Your task to perform on an android device: snooze an email in the gmail app Image 0: 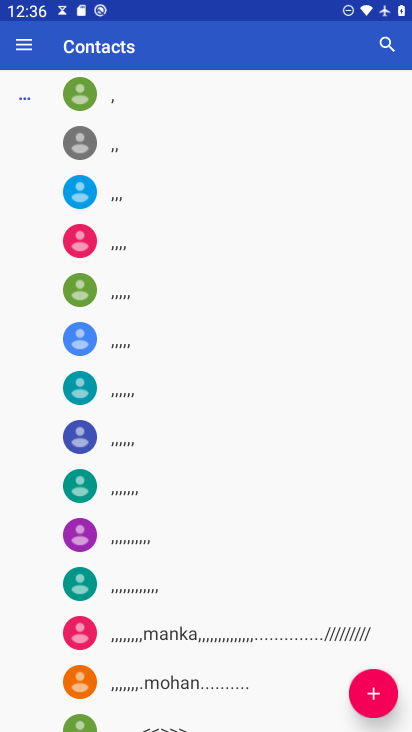
Step 0: press back button
Your task to perform on an android device: snooze an email in the gmail app Image 1: 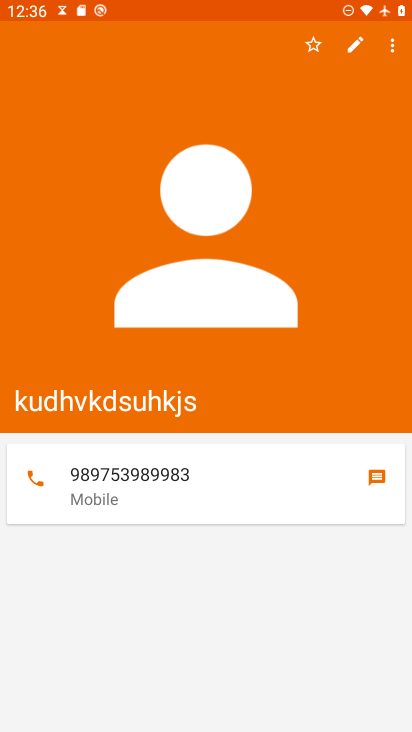
Step 1: press home button
Your task to perform on an android device: snooze an email in the gmail app Image 2: 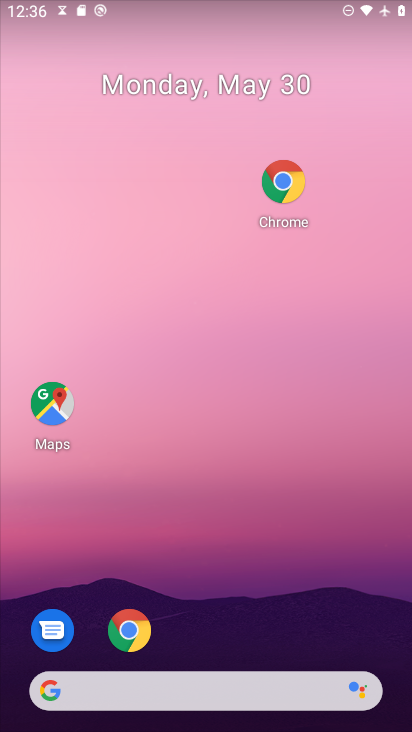
Step 2: drag from (271, 557) to (239, 211)
Your task to perform on an android device: snooze an email in the gmail app Image 3: 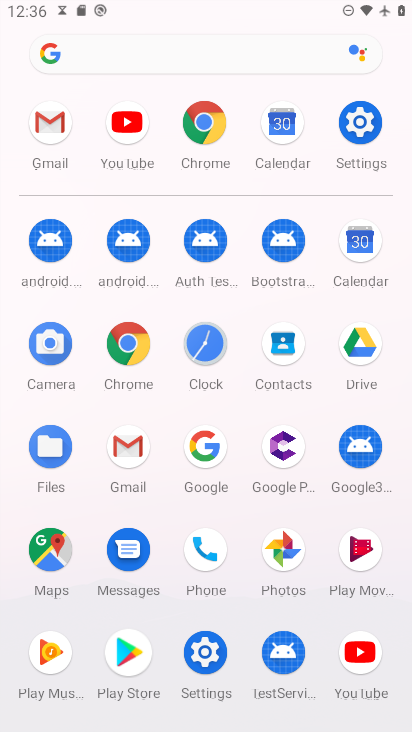
Step 3: click (128, 454)
Your task to perform on an android device: snooze an email in the gmail app Image 4: 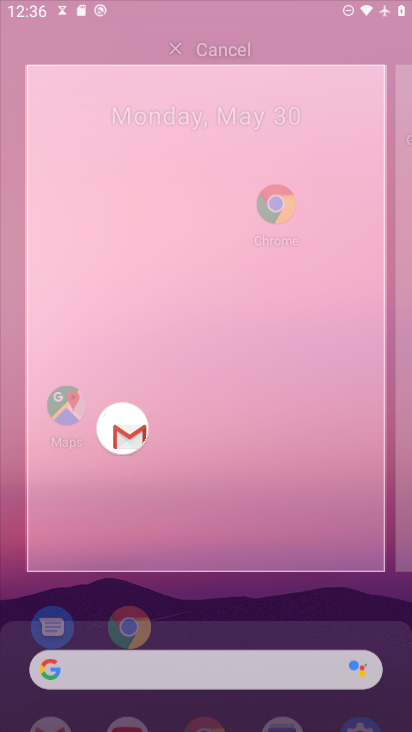
Step 4: click (122, 436)
Your task to perform on an android device: snooze an email in the gmail app Image 5: 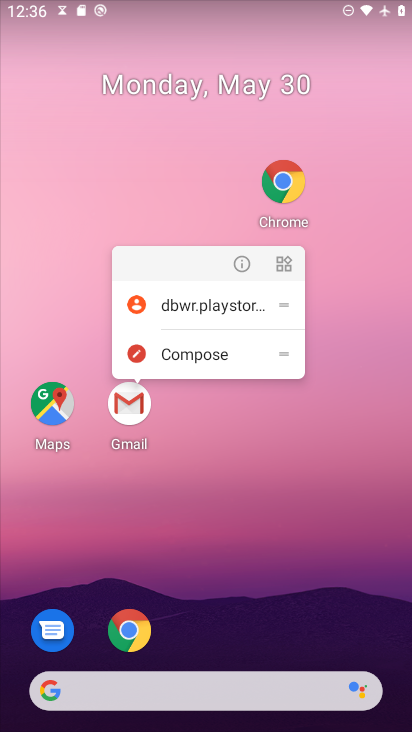
Step 5: drag from (226, 538) to (195, 141)
Your task to perform on an android device: snooze an email in the gmail app Image 6: 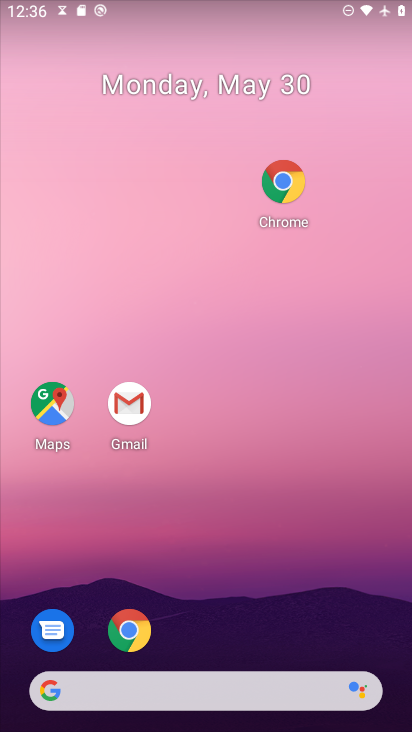
Step 6: drag from (290, 564) to (221, 284)
Your task to perform on an android device: snooze an email in the gmail app Image 7: 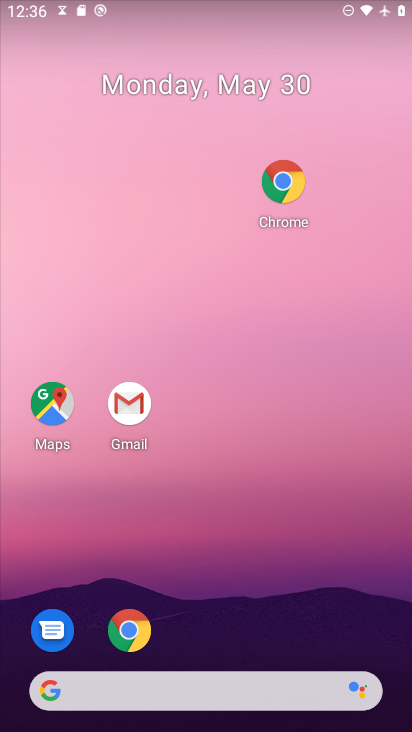
Step 7: click (153, 171)
Your task to perform on an android device: snooze an email in the gmail app Image 8: 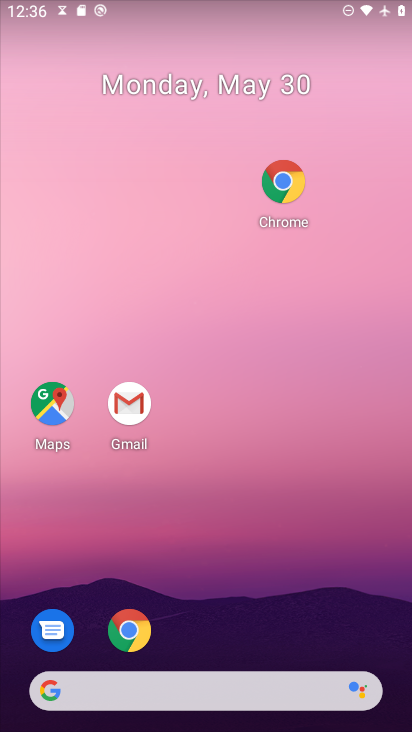
Step 8: drag from (191, 460) to (192, 115)
Your task to perform on an android device: snooze an email in the gmail app Image 9: 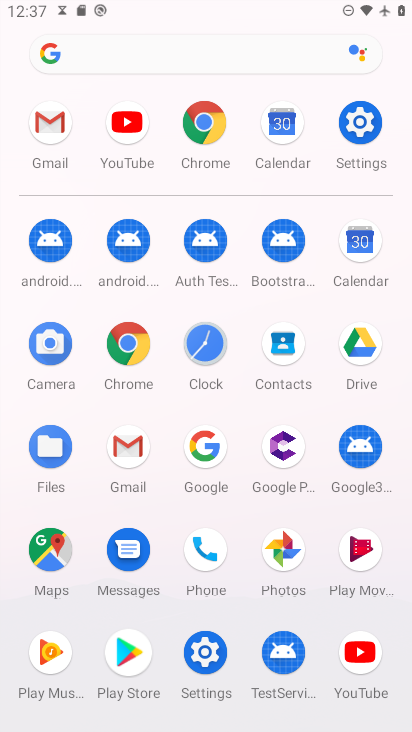
Step 9: click (139, 443)
Your task to perform on an android device: snooze an email in the gmail app Image 10: 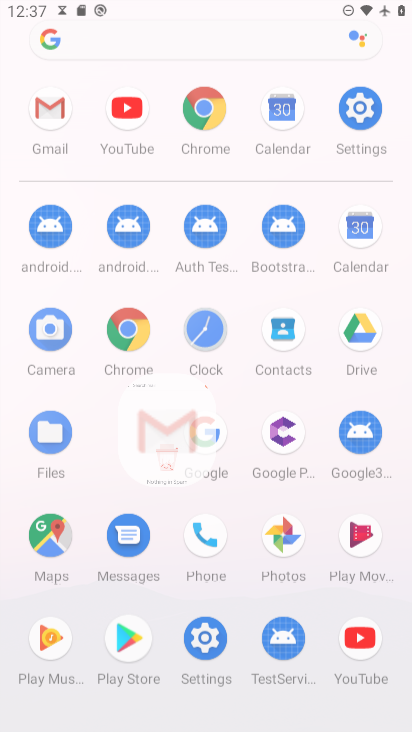
Step 10: click (138, 444)
Your task to perform on an android device: snooze an email in the gmail app Image 11: 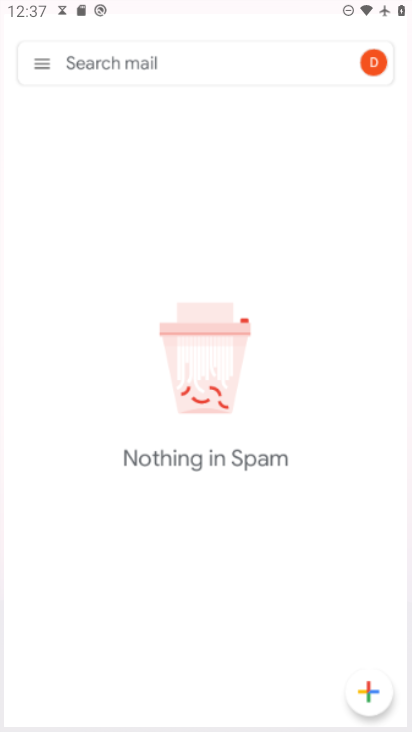
Step 11: click (138, 444)
Your task to perform on an android device: snooze an email in the gmail app Image 12: 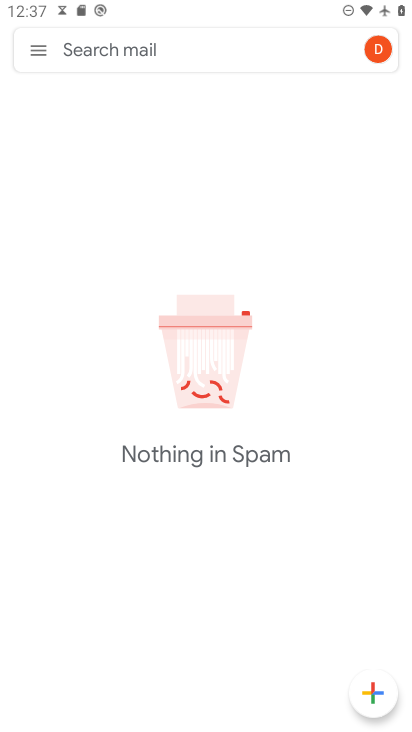
Step 12: click (33, 36)
Your task to perform on an android device: snooze an email in the gmail app Image 13: 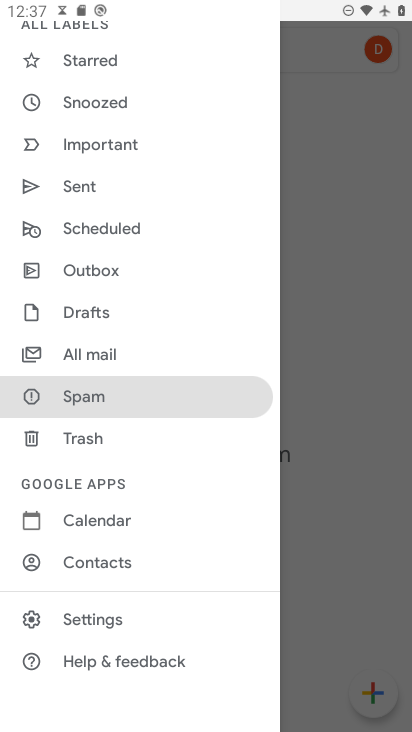
Step 13: click (92, 363)
Your task to perform on an android device: snooze an email in the gmail app Image 14: 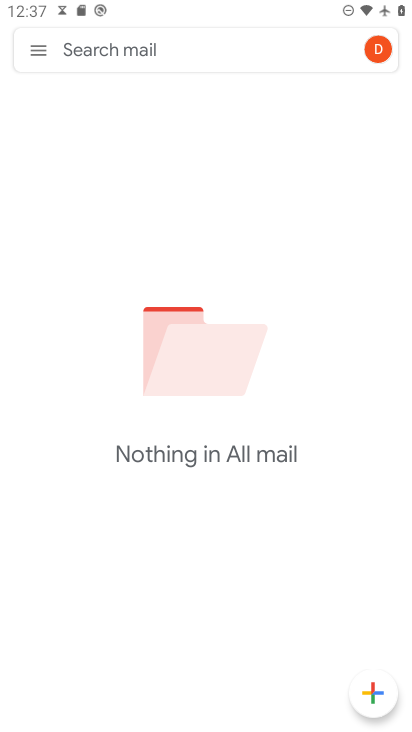
Step 14: task complete